Your task to perform on an android device: turn on sleep mode Image 0: 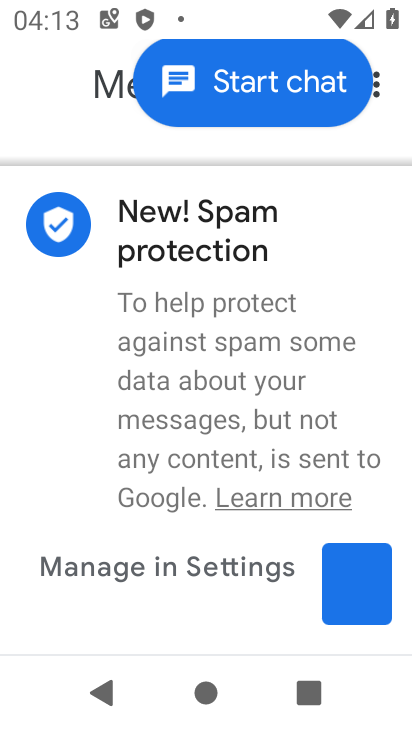
Step 0: press home button
Your task to perform on an android device: turn on sleep mode Image 1: 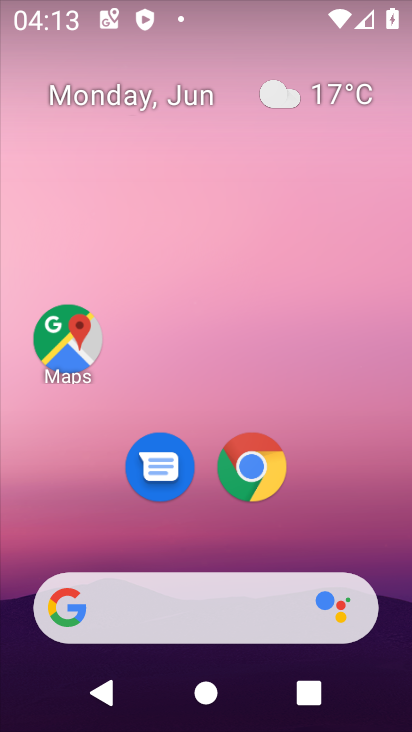
Step 1: drag from (214, 543) to (238, 0)
Your task to perform on an android device: turn on sleep mode Image 2: 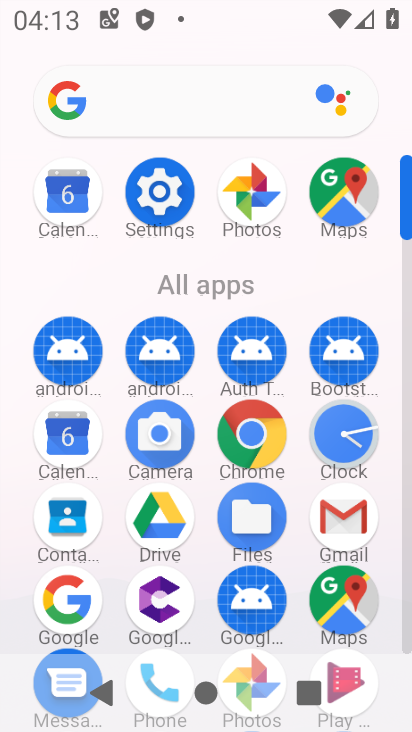
Step 2: click (181, 192)
Your task to perform on an android device: turn on sleep mode Image 3: 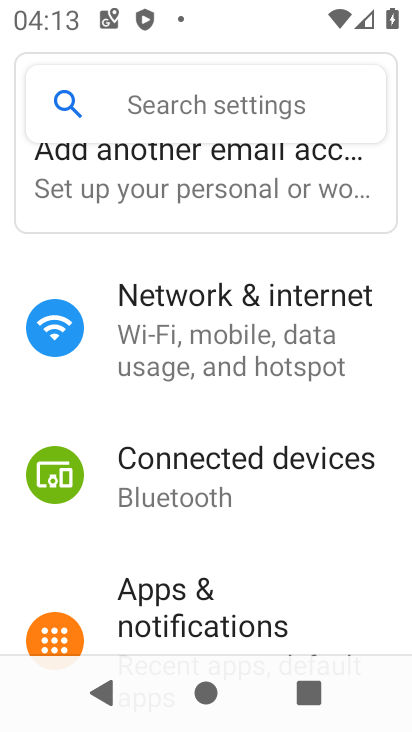
Step 3: click (205, 103)
Your task to perform on an android device: turn on sleep mode Image 4: 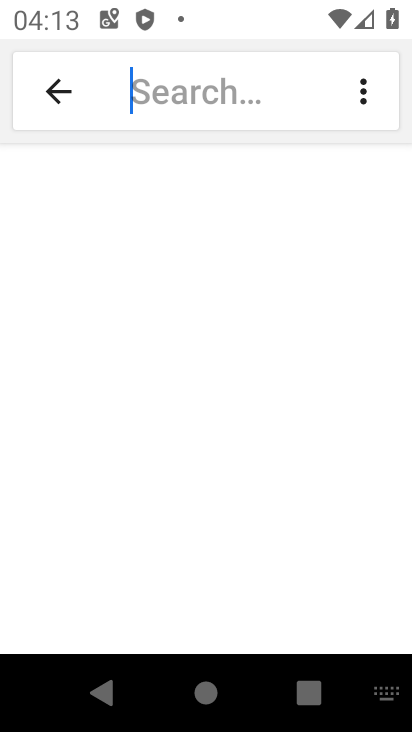
Step 4: type "sleep mode"
Your task to perform on an android device: turn on sleep mode Image 5: 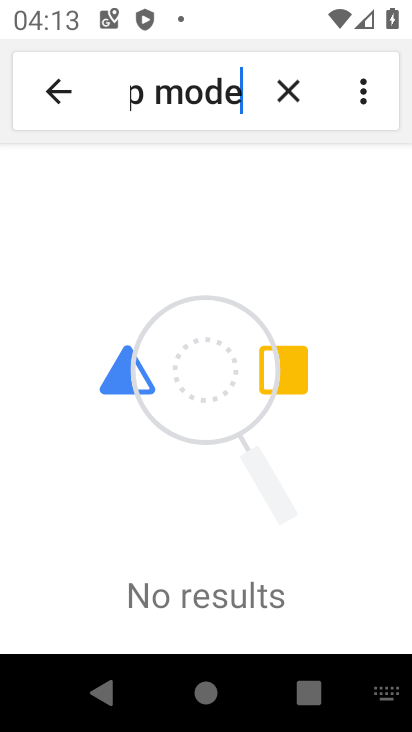
Step 5: task complete